Your task to perform on an android device: add a contact Image 0: 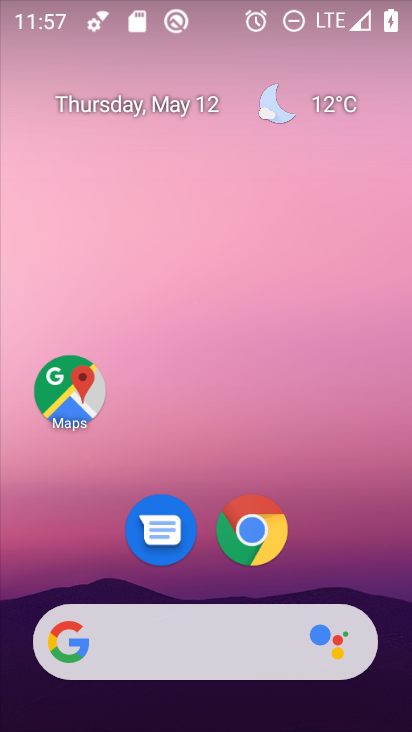
Step 0: drag from (178, 651) to (250, 262)
Your task to perform on an android device: add a contact Image 1: 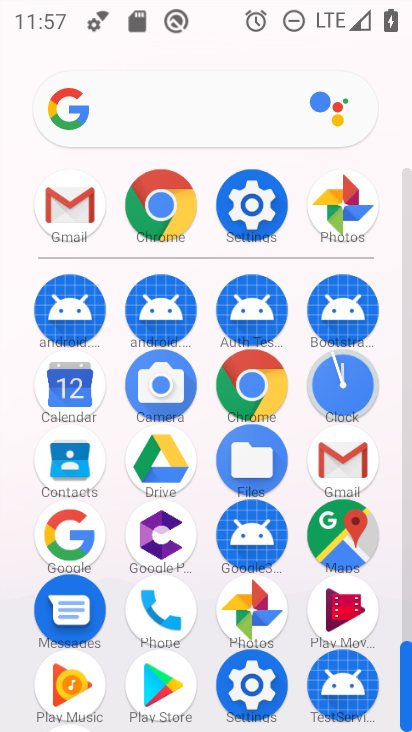
Step 1: click (75, 447)
Your task to perform on an android device: add a contact Image 2: 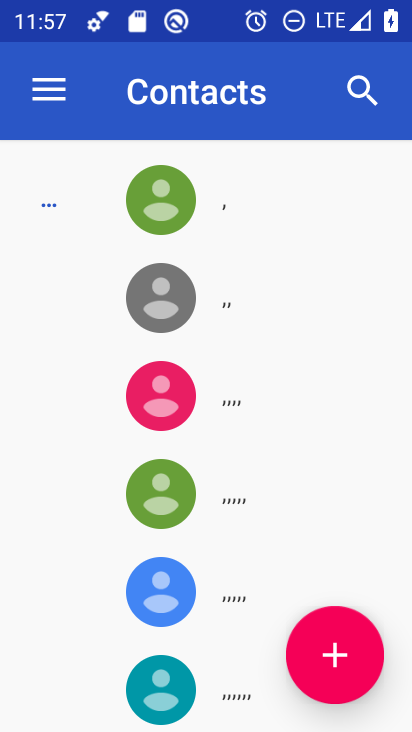
Step 2: click (338, 636)
Your task to perform on an android device: add a contact Image 3: 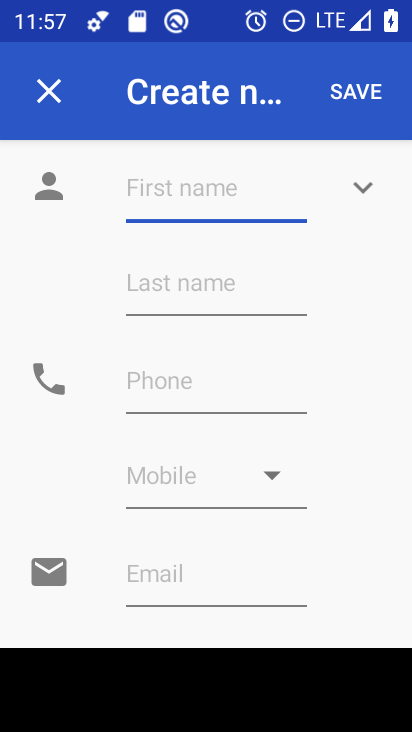
Step 3: type "vtwqa"
Your task to perform on an android device: add a contact Image 4: 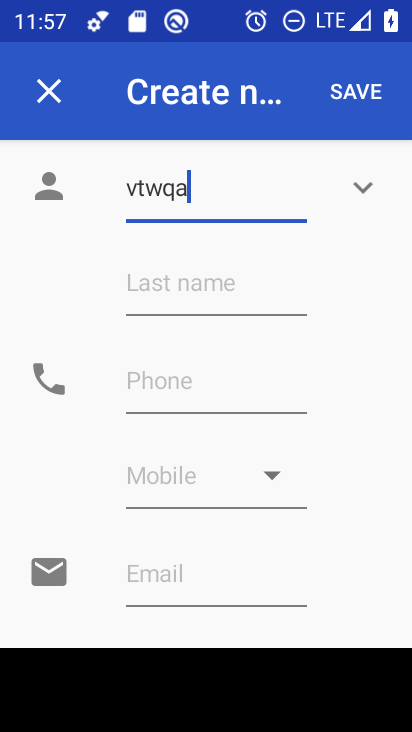
Step 4: click (208, 379)
Your task to perform on an android device: add a contact Image 5: 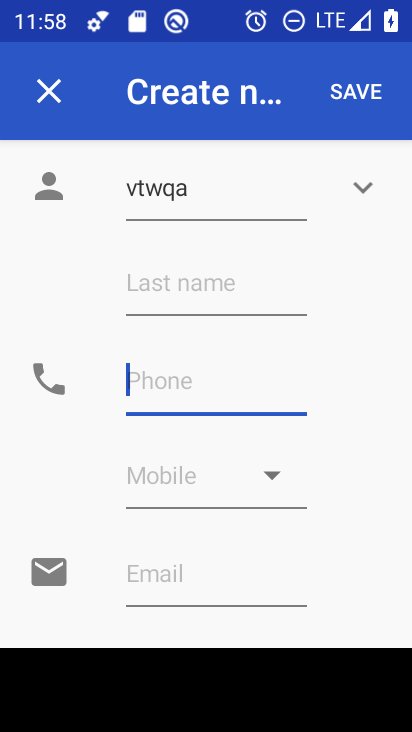
Step 5: type "152686"
Your task to perform on an android device: add a contact Image 6: 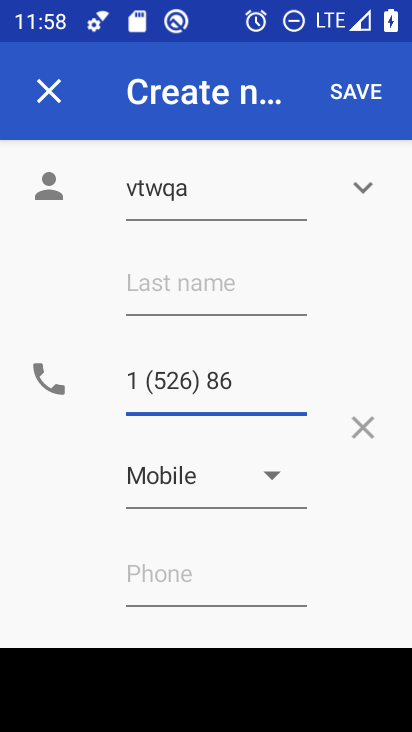
Step 6: click (366, 94)
Your task to perform on an android device: add a contact Image 7: 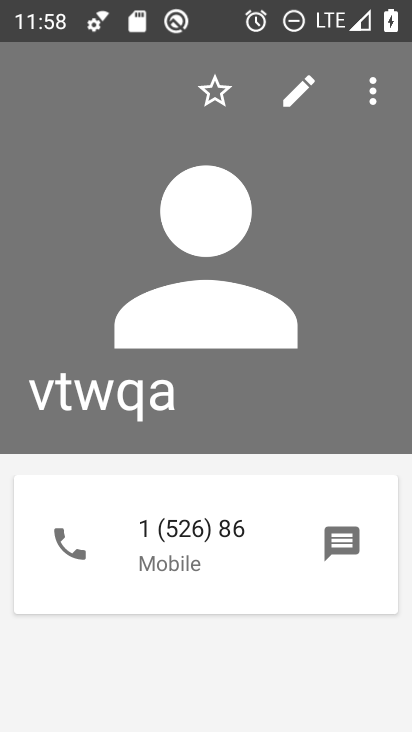
Step 7: task complete